Your task to perform on an android device: Go to Maps Image 0: 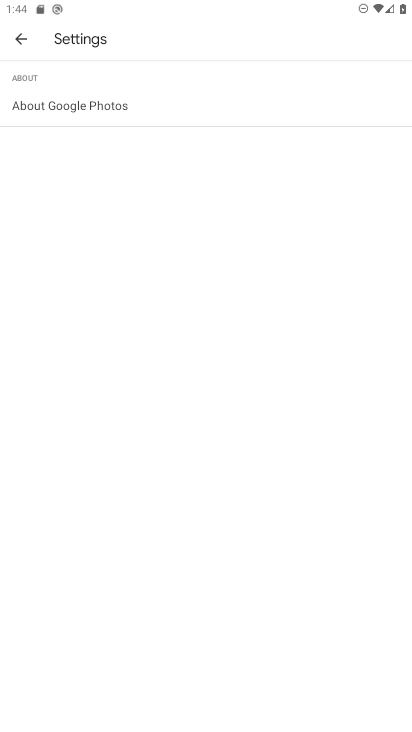
Step 0: drag from (216, 672) to (212, 434)
Your task to perform on an android device: Go to Maps Image 1: 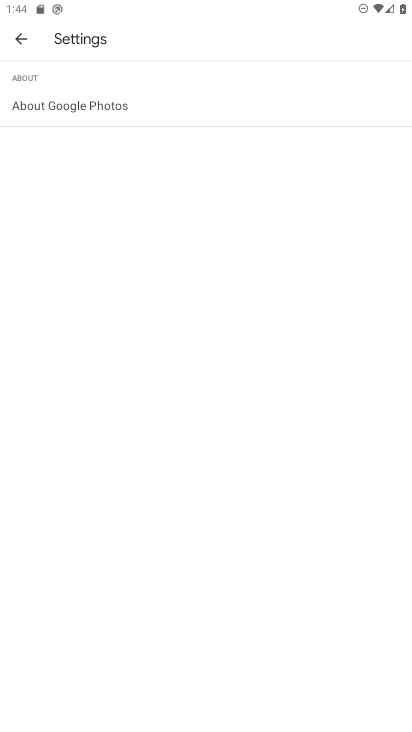
Step 1: press home button
Your task to perform on an android device: Go to Maps Image 2: 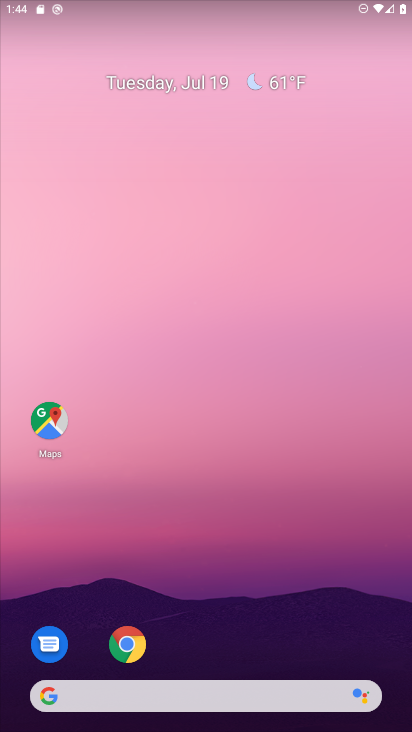
Step 2: click (61, 427)
Your task to perform on an android device: Go to Maps Image 3: 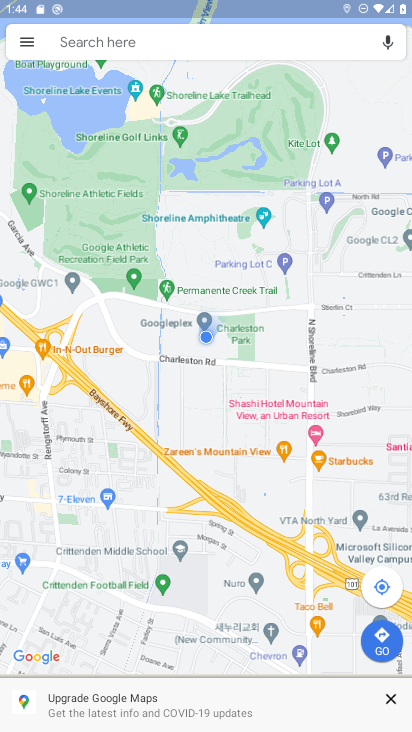
Step 3: task complete